Your task to perform on an android device: Is it going to rain today? Image 0: 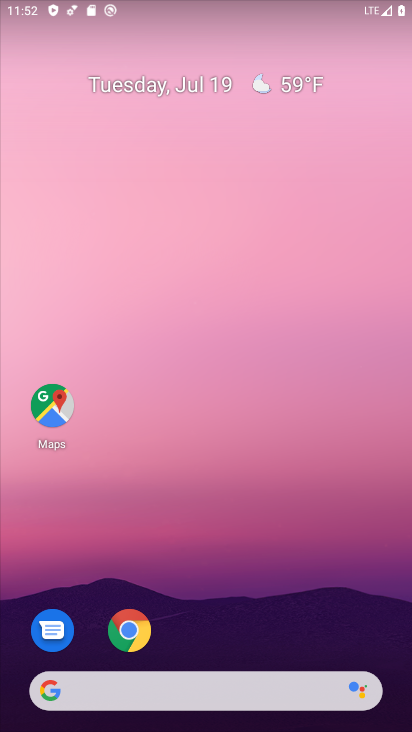
Step 0: drag from (220, 669) to (291, 168)
Your task to perform on an android device: Is it going to rain today? Image 1: 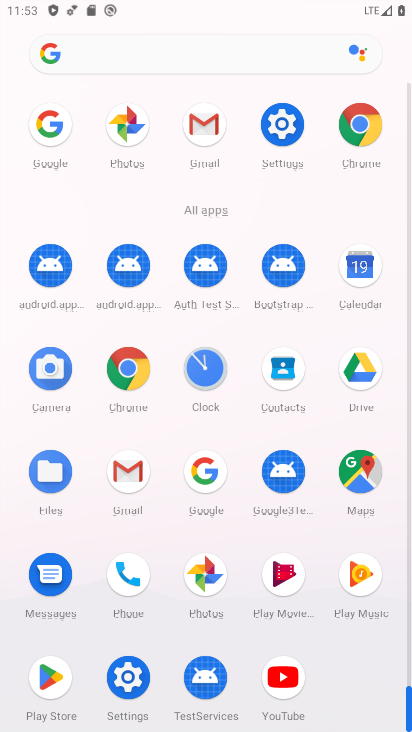
Step 1: click (212, 472)
Your task to perform on an android device: Is it going to rain today? Image 2: 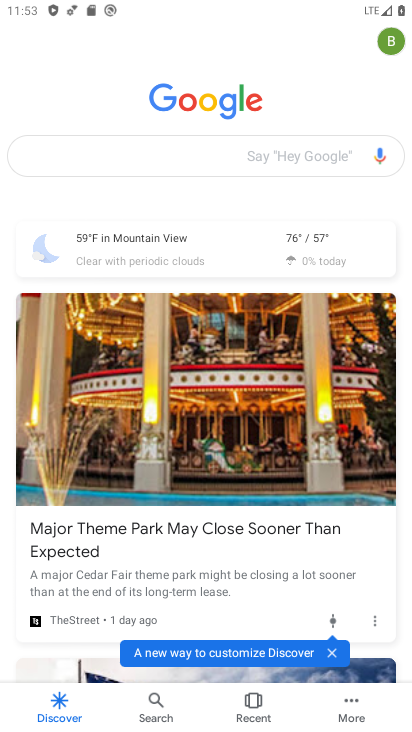
Step 2: click (119, 155)
Your task to perform on an android device: Is it going to rain today? Image 3: 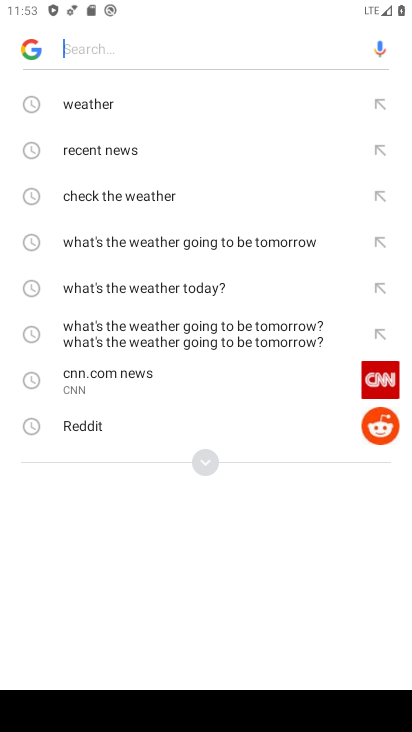
Step 3: click (111, 106)
Your task to perform on an android device: Is it going to rain today? Image 4: 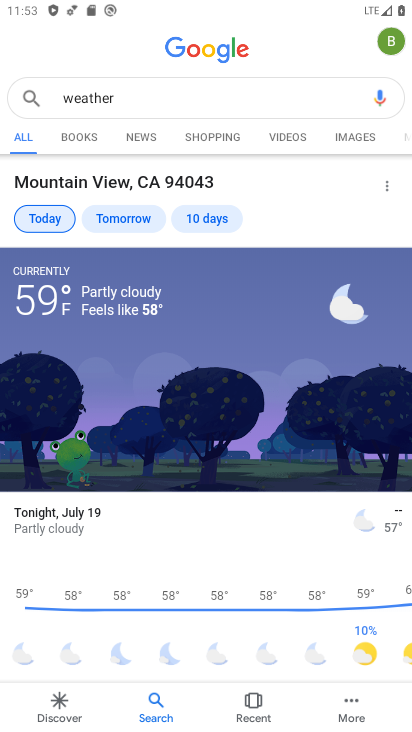
Step 4: task complete